Your task to perform on an android device: turn off translation in the chrome app Image 0: 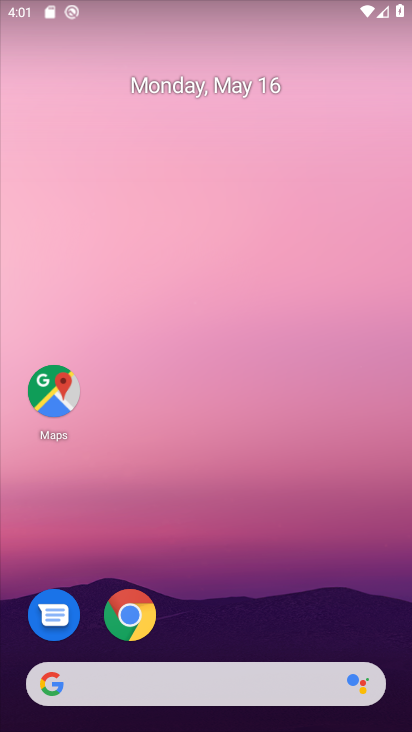
Step 0: click (133, 624)
Your task to perform on an android device: turn off translation in the chrome app Image 1: 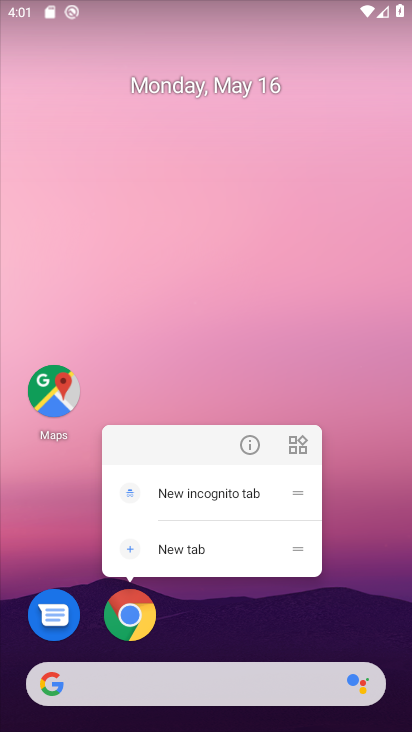
Step 1: click (133, 618)
Your task to perform on an android device: turn off translation in the chrome app Image 2: 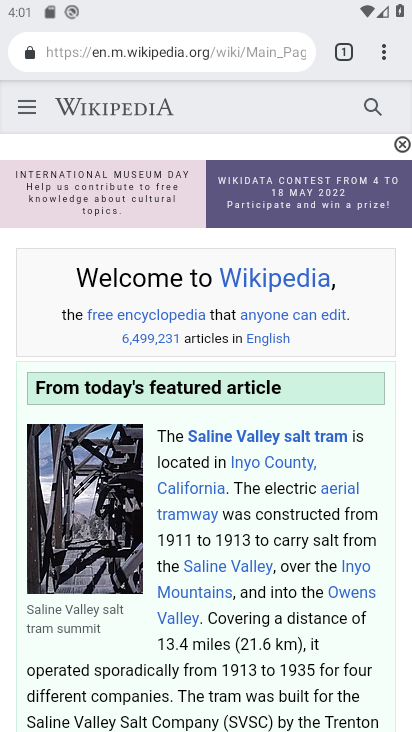
Step 2: click (386, 55)
Your task to perform on an android device: turn off translation in the chrome app Image 3: 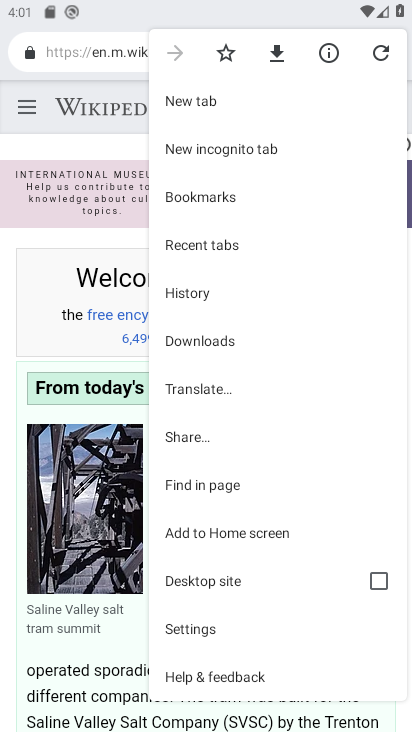
Step 3: click (197, 639)
Your task to perform on an android device: turn off translation in the chrome app Image 4: 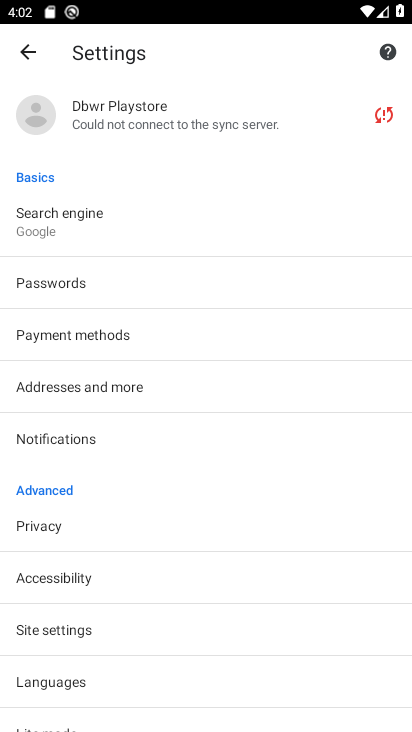
Step 4: click (52, 685)
Your task to perform on an android device: turn off translation in the chrome app Image 5: 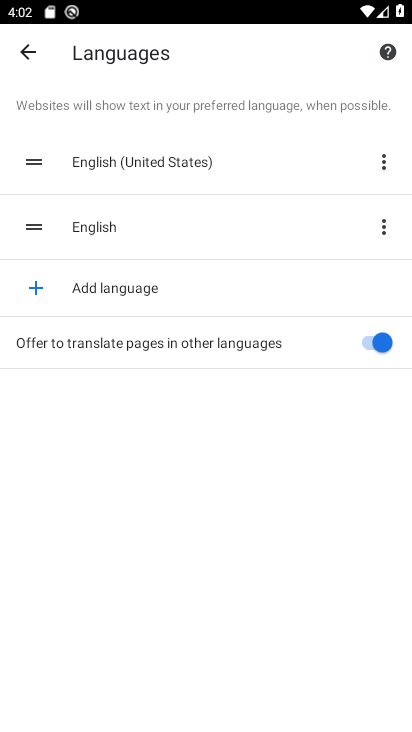
Step 5: click (372, 339)
Your task to perform on an android device: turn off translation in the chrome app Image 6: 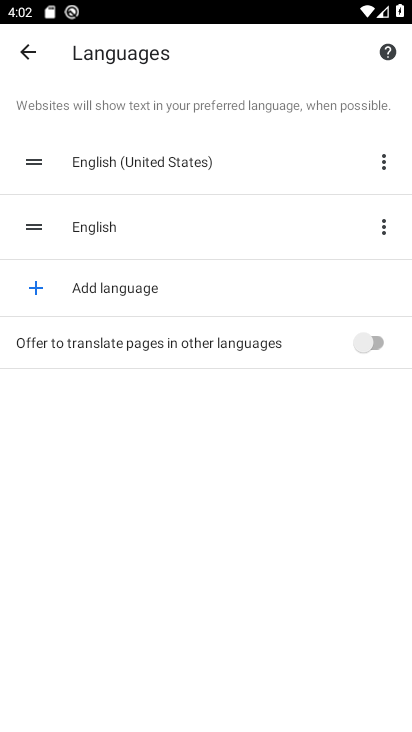
Step 6: task complete